Your task to perform on an android device: toggle translation in the chrome app Image 0: 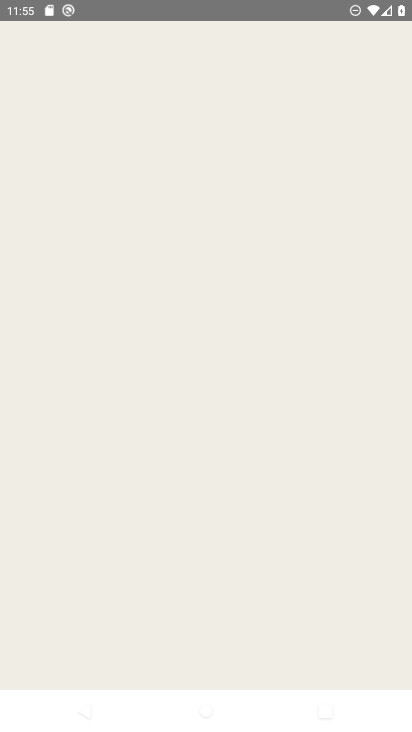
Step 0: press home button
Your task to perform on an android device: toggle translation in the chrome app Image 1: 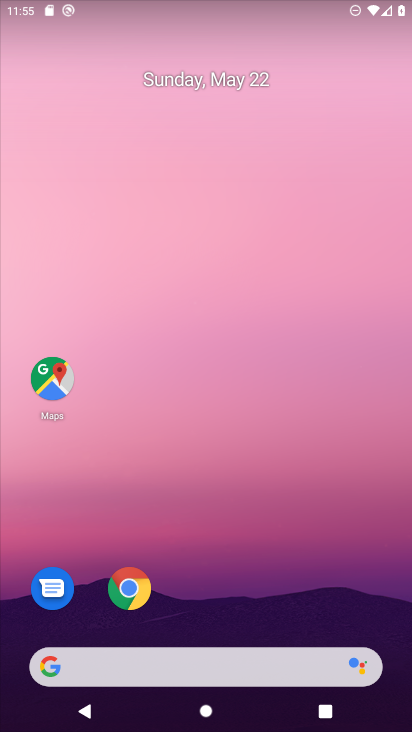
Step 1: drag from (270, 682) to (305, 311)
Your task to perform on an android device: toggle translation in the chrome app Image 2: 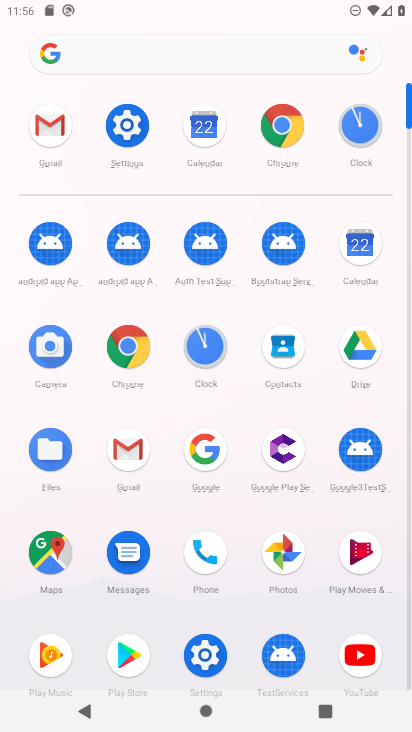
Step 2: click (281, 140)
Your task to perform on an android device: toggle translation in the chrome app Image 3: 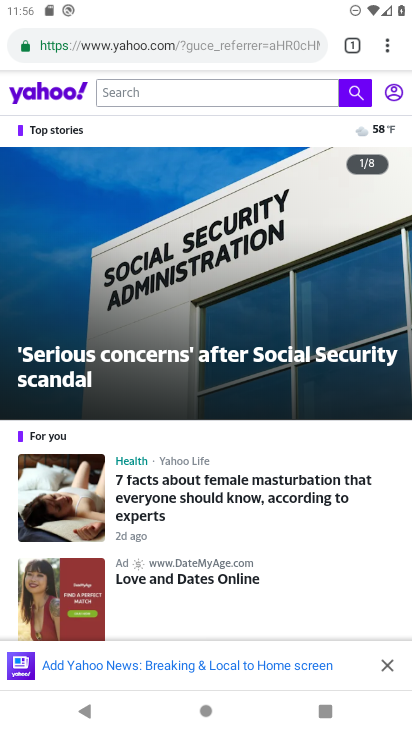
Step 3: click (383, 56)
Your task to perform on an android device: toggle translation in the chrome app Image 4: 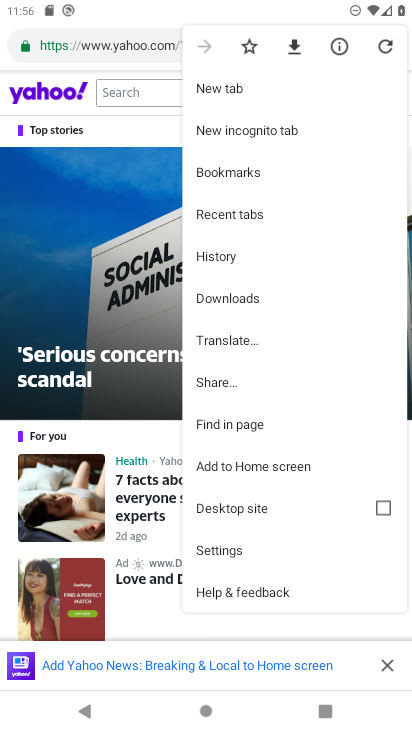
Step 4: click (241, 557)
Your task to perform on an android device: toggle translation in the chrome app Image 5: 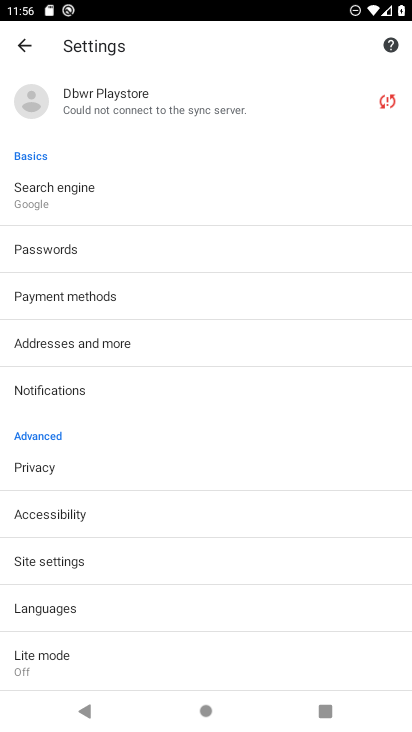
Step 5: click (79, 598)
Your task to perform on an android device: toggle translation in the chrome app Image 6: 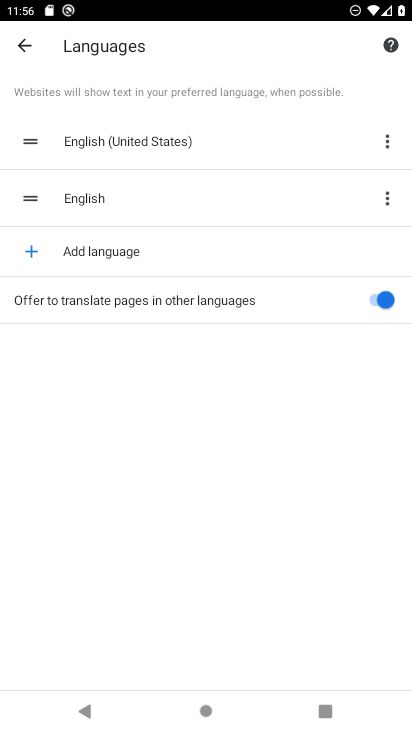
Step 6: click (374, 284)
Your task to perform on an android device: toggle translation in the chrome app Image 7: 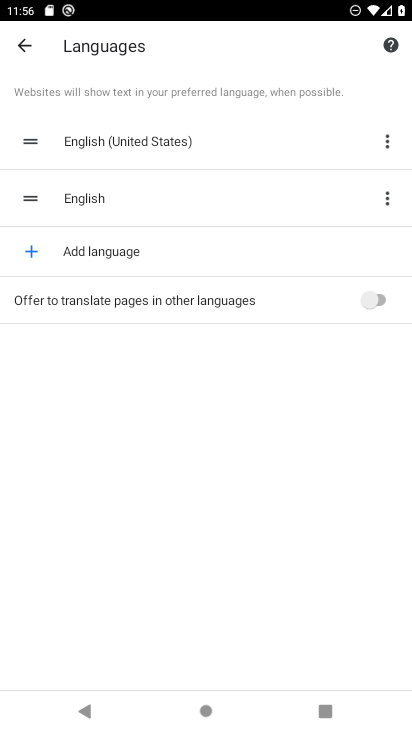
Step 7: click (368, 288)
Your task to perform on an android device: toggle translation in the chrome app Image 8: 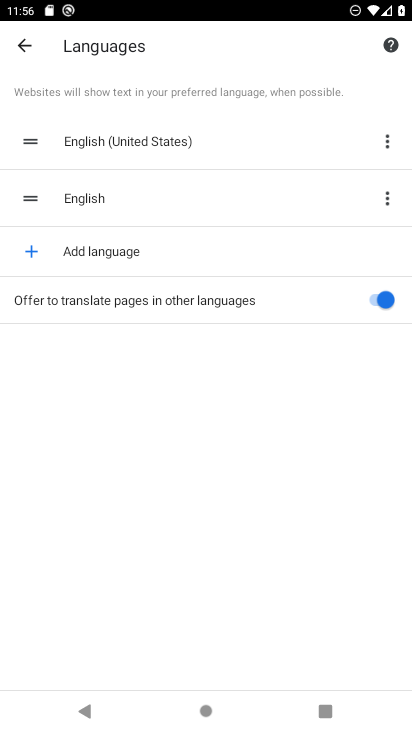
Step 8: task complete